Your task to perform on an android device: Open calendar and show me the fourth week of next month Image 0: 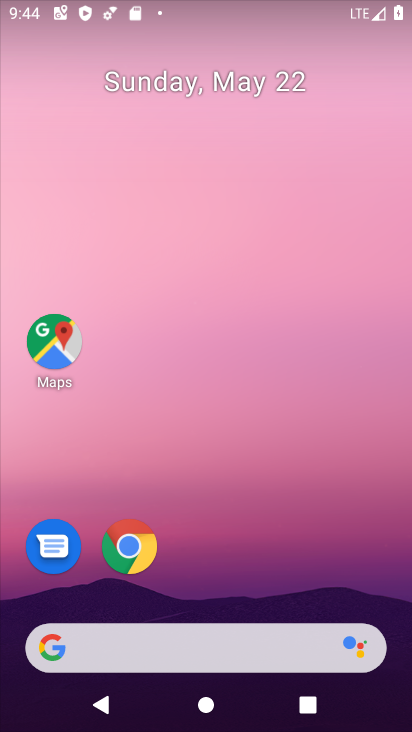
Step 0: drag from (213, 470) to (292, 2)
Your task to perform on an android device: Open calendar and show me the fourth week of next month Image 1: 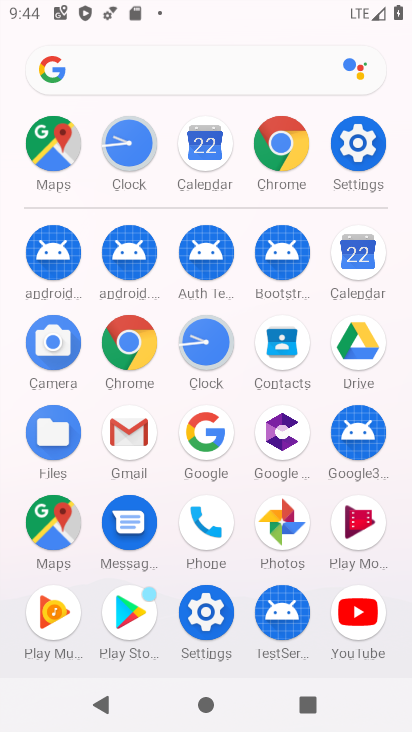
Step 1: click (342, 243)
Your task to perform on an android device: Open calendar and show me the fourth week of next month Image 2: 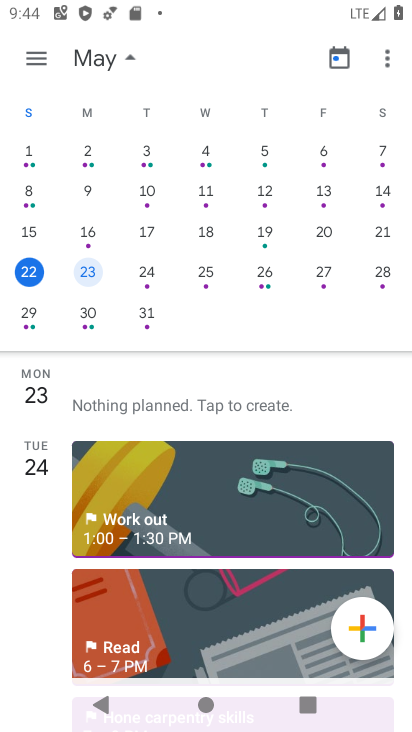
Step 2: drag from (340, 235) to (14, 154)
Your task to perform on an android device: Open calendar and show me the fourth week of next month Image 3: 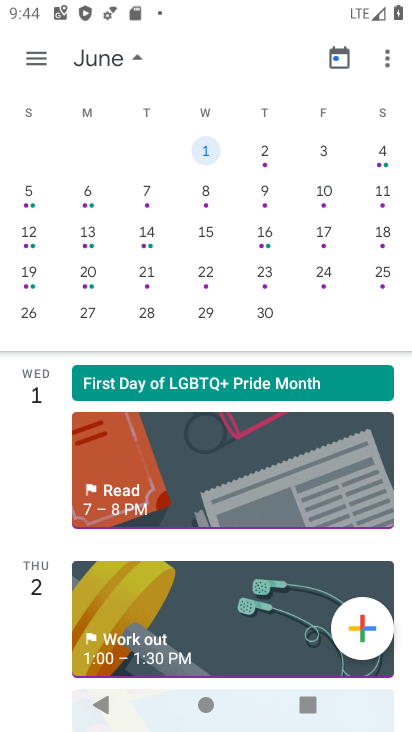
Step 3: click (264, 314)
Your task to perform on an android device: Open calendar and show me the fourth week of next month Image 4: 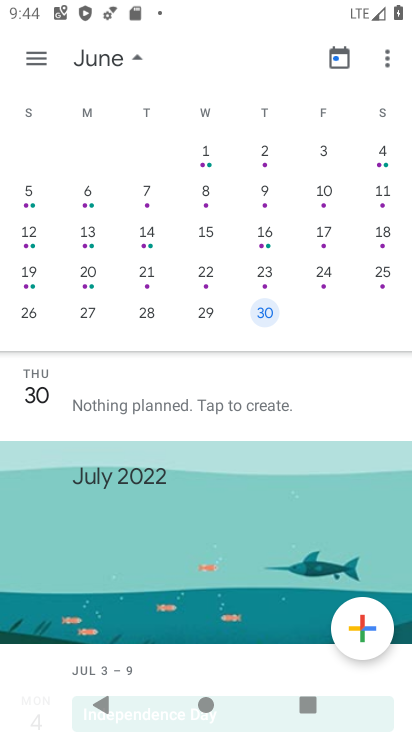
Step 4: drag from (272, 504) to (309, 206)
Your task to perform on an android device: Open calendar and show me the fourth week of next month Image 5: 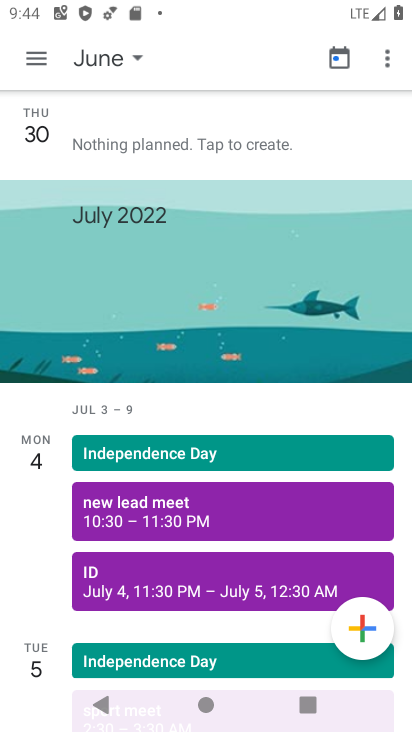
Step 5: drag from (294, 180) to (279, 573)
Your task to perform on an android device: Open calendar and show me the fourth week of next month Image 6: 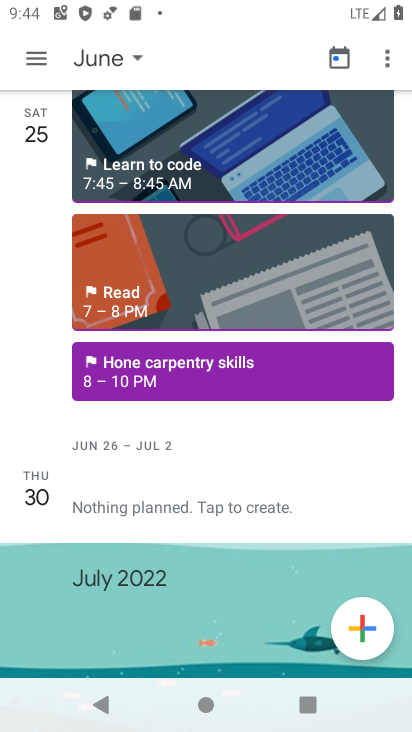
Step 6: drag from (246, 202) to (317, 592)
Your task to perform on an android device: Open calendar and show me the fourth week of next month Image 7: 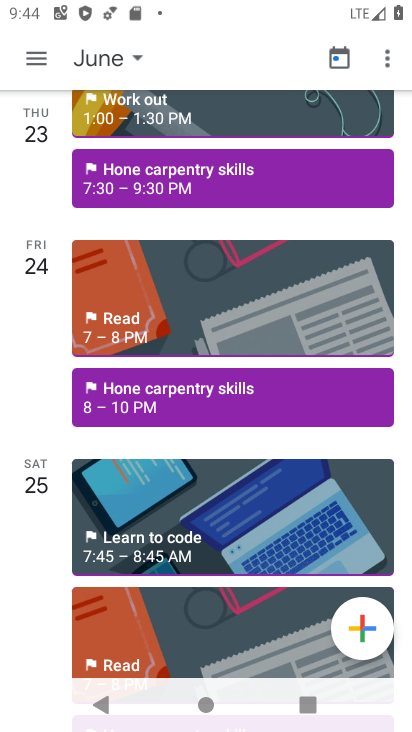
Step 7: click (103, 59)
Your task to perform on an android device: Open calendar and show me the fourth week of next month Image 8: 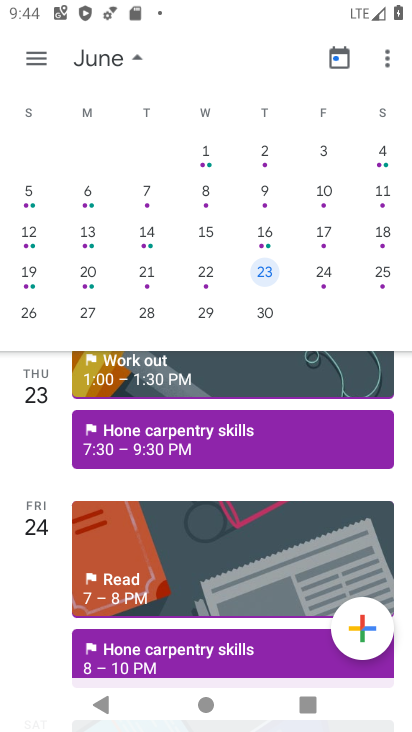
Step 8: click (255, 311)
Your task to perform on an android device: Open calendar and show me the fourth week of next month Image 9: 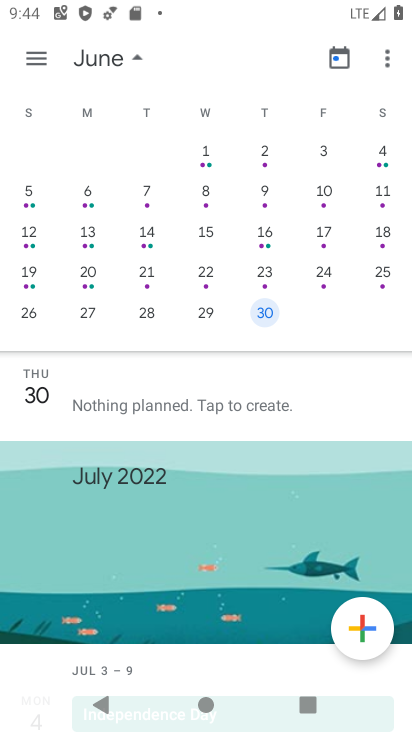
Step 9: task complete